Your task to perform on an android device: What's the weather like inToronto? Image 0: 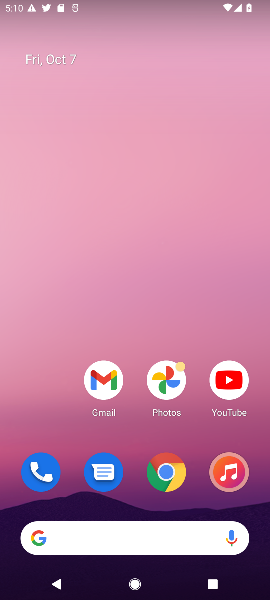
Step 0: click (171, 480)
Your task to perform on an android device: What's the weather like inToronto? Image 1: 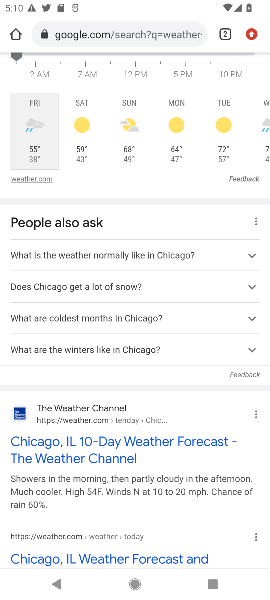
Step 1: drag from (163, 353) to (156, 508)
Your task to perform on an android device: What's the weather like inToronto? Image 2: 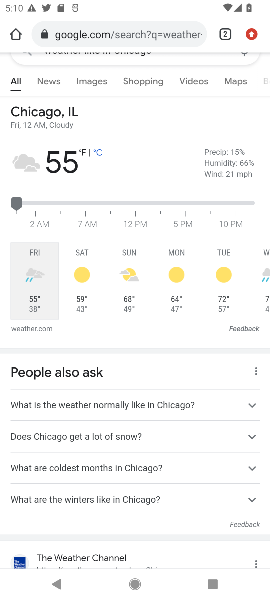
Step 2: click (112, 32)
Your task to perform on an android device: What's the weather like inToronto? Image 3: 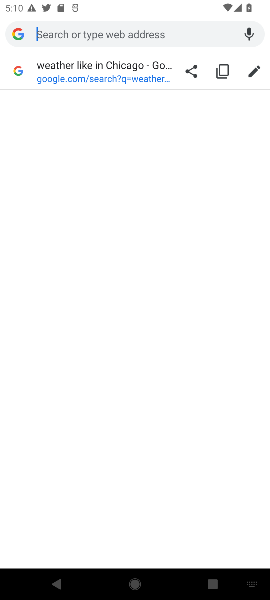
Step 3: type "weather like inToronto"
Your task to perform on an android device: What's the weather like inToronto? Image 4: 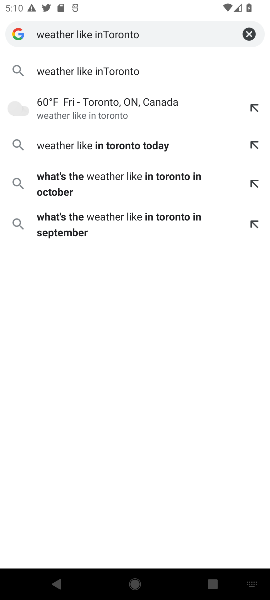
Step 4: click (98, 72)
Your task to perform on an android device: What's the weather like inToronto? Image 5: 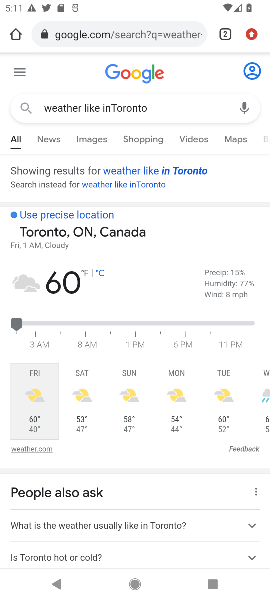
Step 5: task complete